Your task to perform on an android device: See recent photos Image 0: 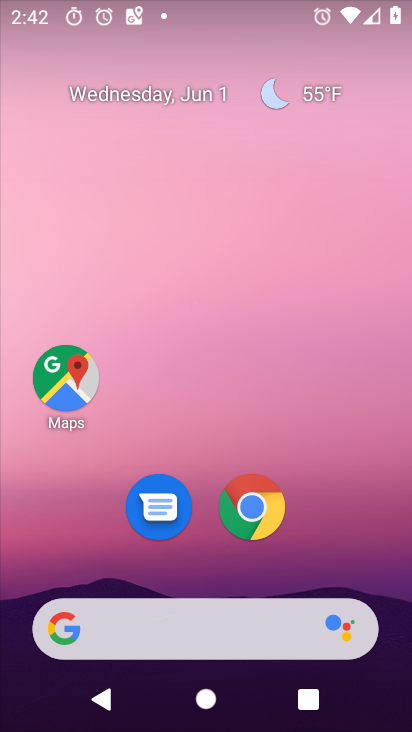
Step 0: drag from (349, 597) to (332, 342)
Your task to perform on an android device: See recent photos Image 1: 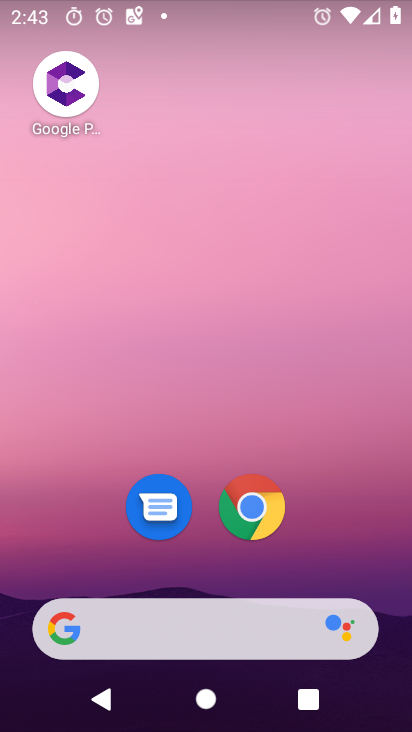
Step 1: drag from (407, 614) to (406, 57)
Your task to perform on an android device: See recent photos Image 2: 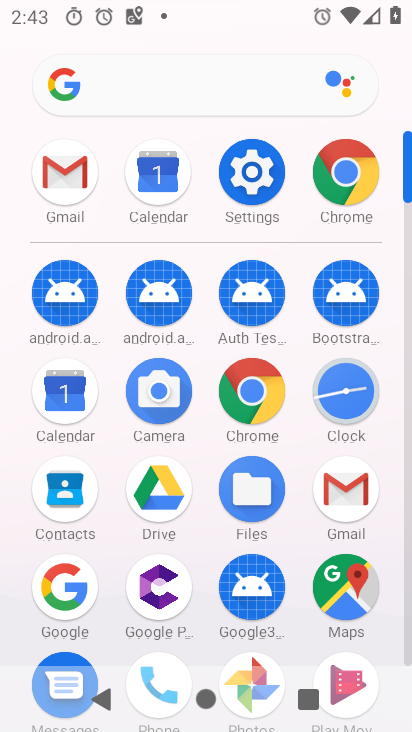
Step 2: click (408, 531)
Your task to perform on an android device: See recent photos Image 3: 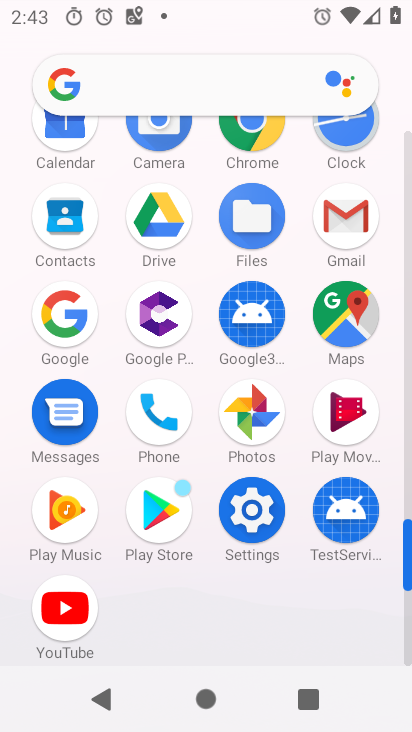
Step 3: click (248, 421)
Your task to perform on an android device: See recent photos Image 4: 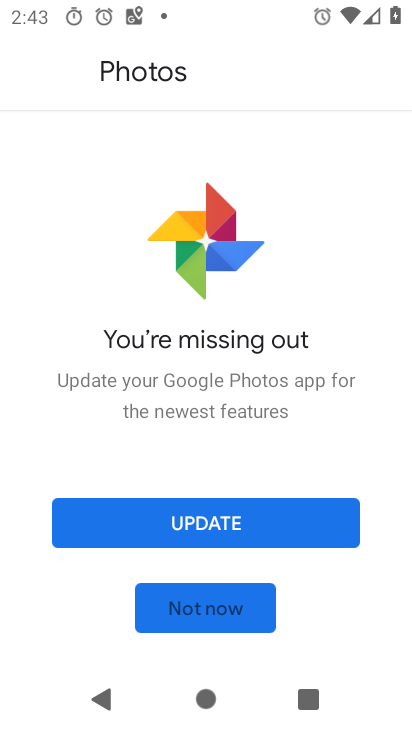
Step 4: click (288, 431)
Your task to perform on an android device: See recent photos Image 5: 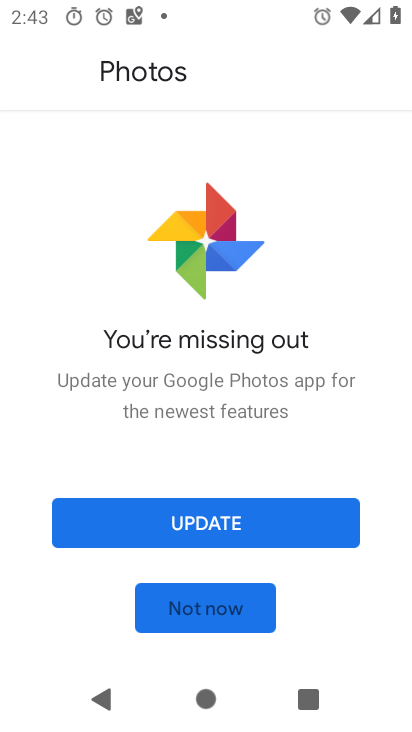
Step 5: click (215, 502)
Your task to perform on an android device: See recent photos Image 6: 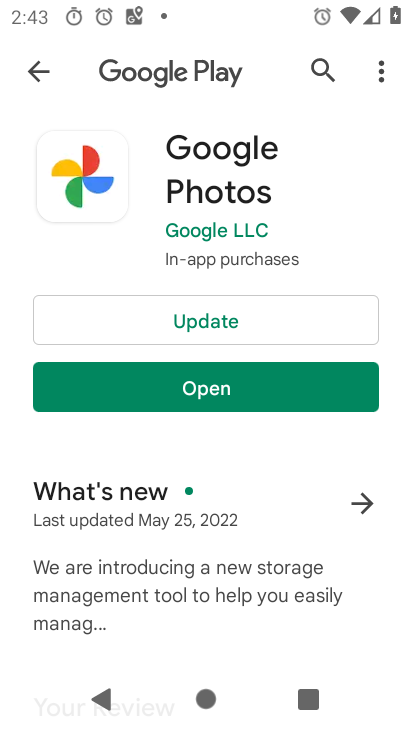
Step 6: click (214, 318)
Your task to perform on an android device: See recent photos Image 7: 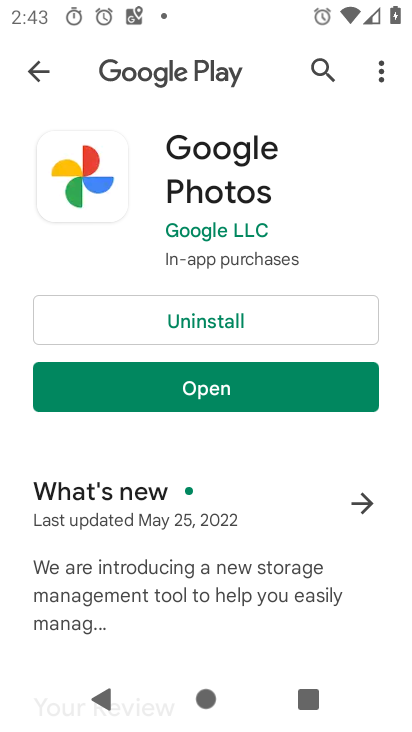
Step 7: click (197, 392)
Your task to perform on an android device: See recent photos Image 8: 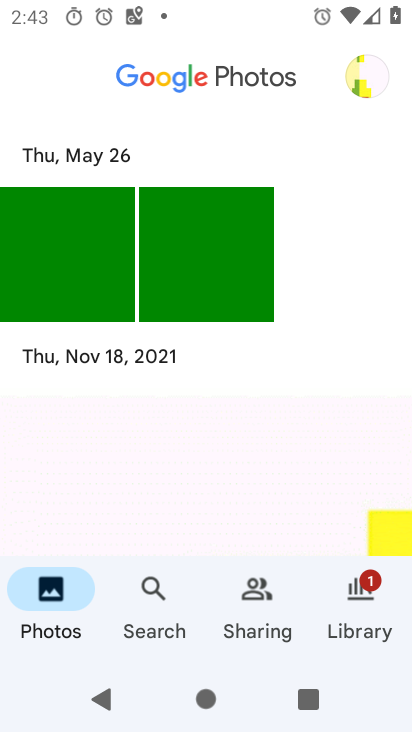
Step 8: click (377, 625)
Your task to perform on an android device: See recent photos Image 9: 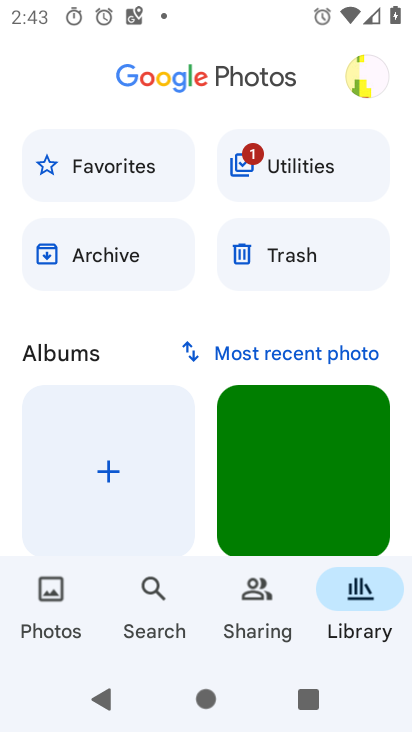
Step 9: click (314, 358)
Your task to perform on an android device: See recent photos Image 10: 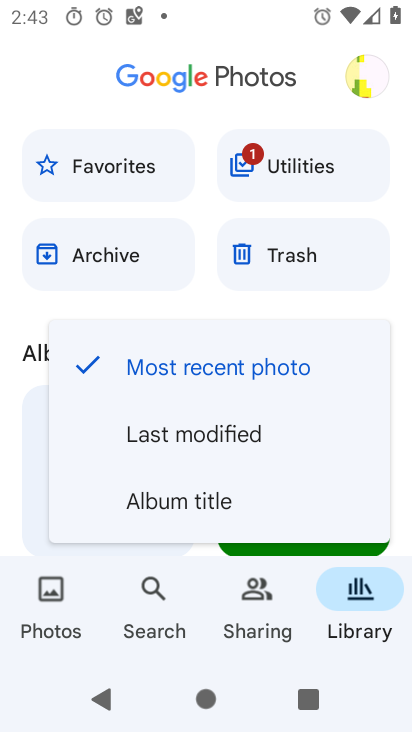
Step 10: click (288, 373)
Your task to perform on an android device: See recent photos Image 11: 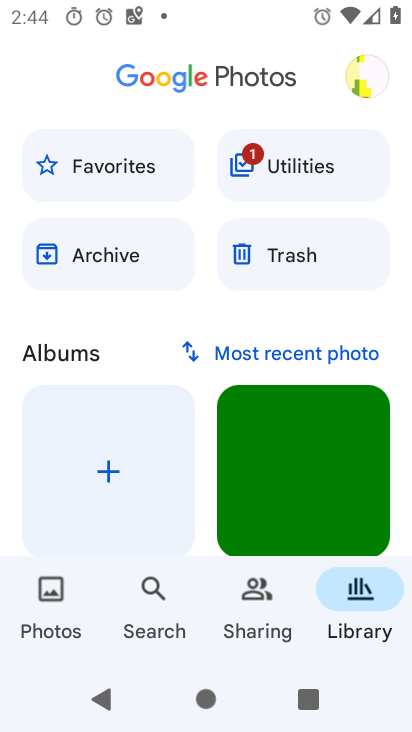
Step 11: task complete